Your task to perform on an android device: star an email in the gmail app Image 0: 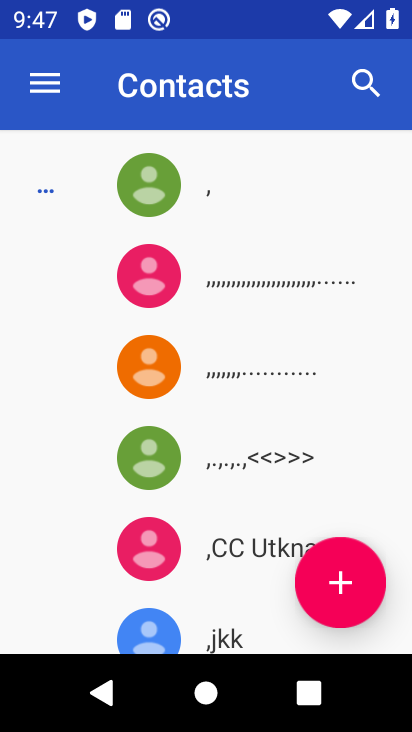
Step 0: press home button
Your task to perform on an android device: star an email in the gmail app Image 1: 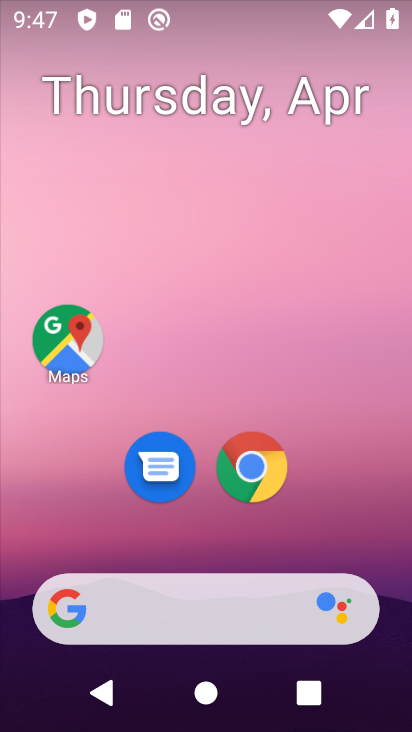
Step 1: drag from (371, 476) to (297, 202)
Your task to perform on an android device: star an email in the gmail app Image 2: 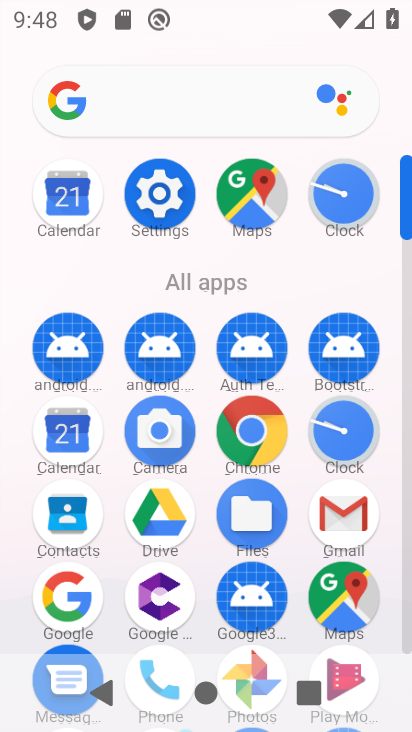
Step 2: click (328, 495)
Your task to perform on an android device: star an email in the gmail app Image 3: 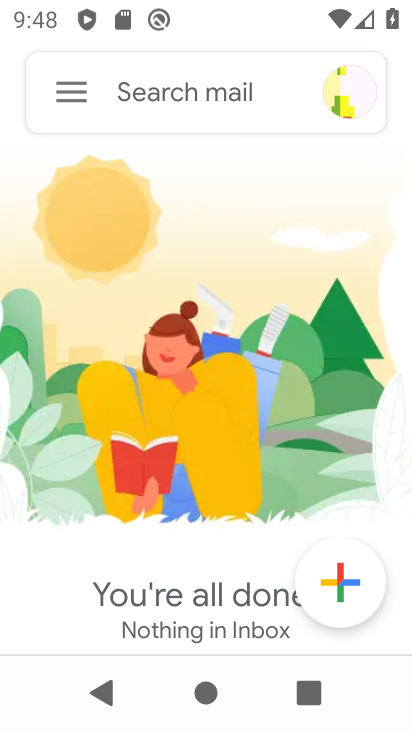
Step 3: click (73, 105)
Your task to perform on an android device: star an email in the gmail app Image 4: 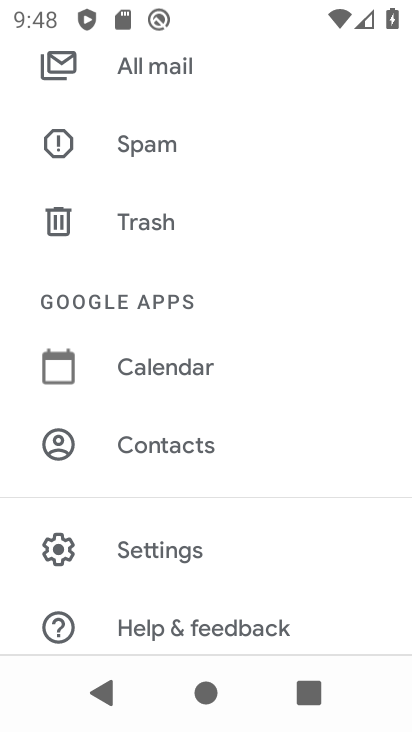
Step 4: click (230, 57)
Your task to perform on an android device: star an email in the gmail app Image 5: 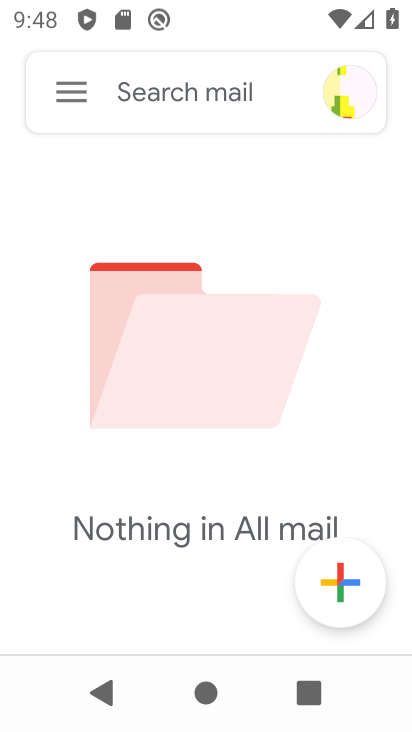
Step 5: task complete